Your task to perform on an android device: turn on showing notifications on the lock screen Image 0: 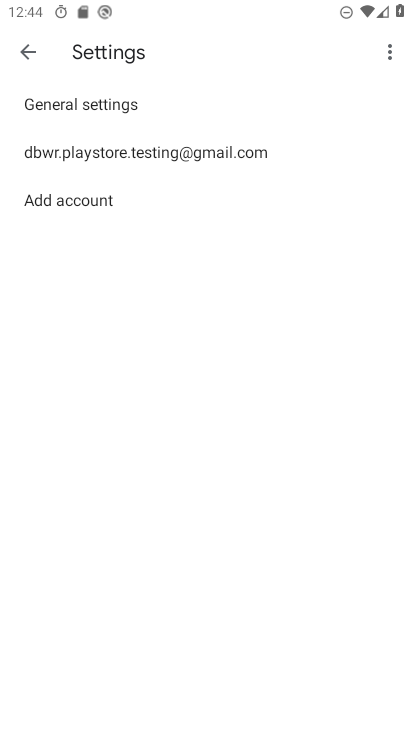
Step 0: press home button
Your task to perform on an android device: turn on showing notifications on the lock screen Image 1: 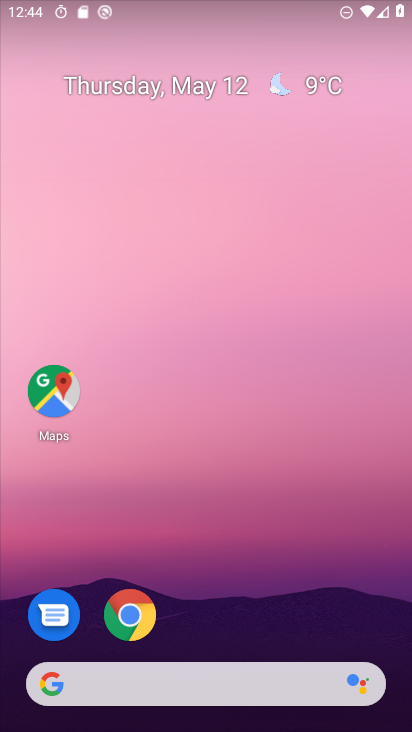
Step 1: drag from (260, 490) to (246, 68)
Your task to perform on an android device: turn on showing notifications on the lock screen Image 2: 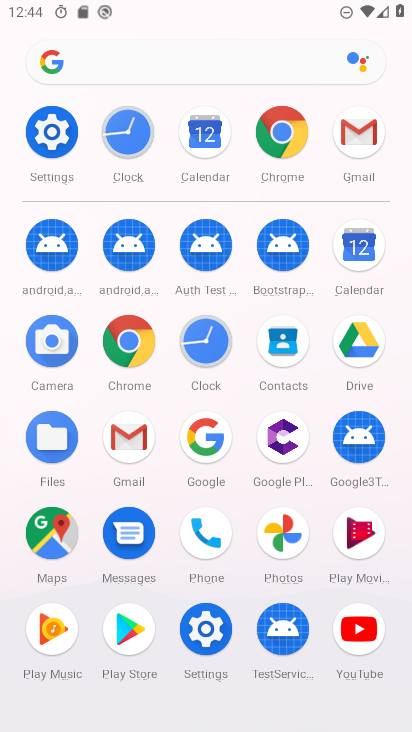
Step 2: click (57, 146)
Your task to perform on an android device: turn on showing notifications on the lock screen Image 3: 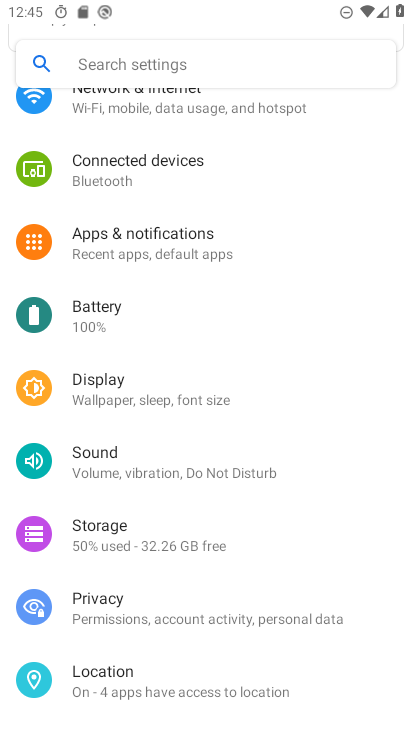
Step 3: drag from (178, 323) to (177, 499)
Your task to perform on an android device: turn on showing notifications on the lock screen Image 4: 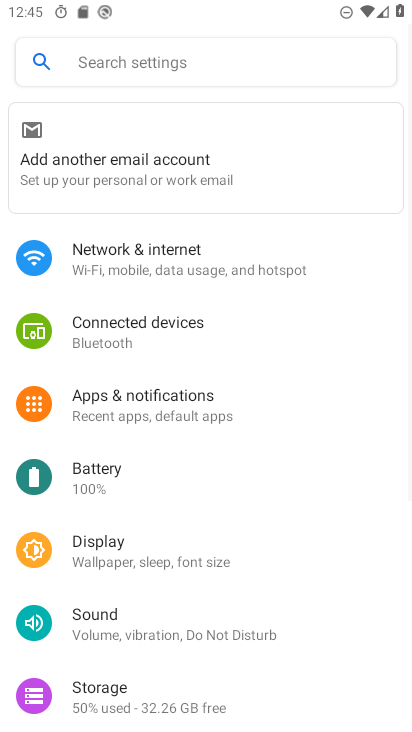
Step 4: click (168, 418)
Your task to perform on an android device: turn on showing notifications on the lock screen Image 5: 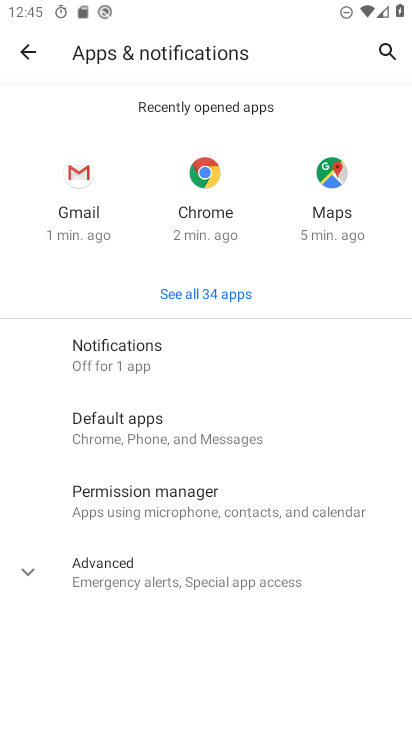
Step 5: click (160, 370)
Your task to perform on an android device: turn on showing notifications on the lock screen Image 6: 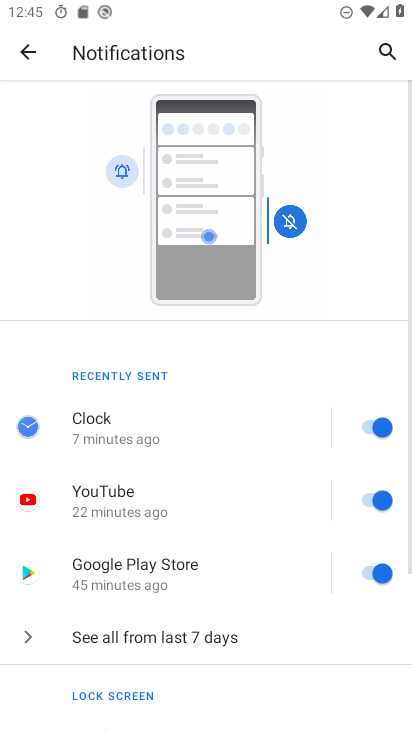
Step 6: drag from (201, 632) to (225, 93)
Your task to perform on an android device: turn on showing notifications on the lock screen Image 7: 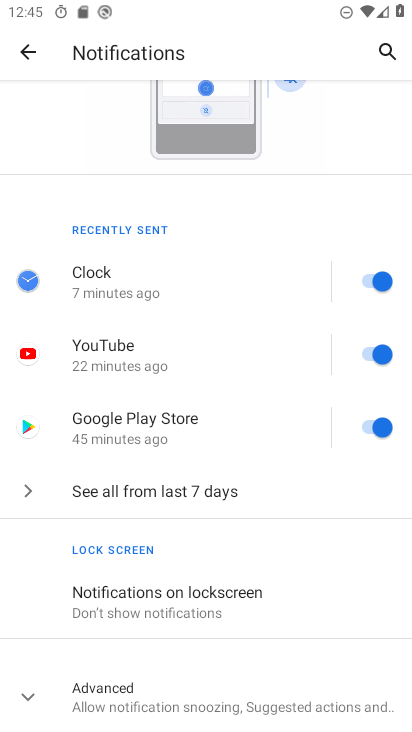
Step 7: click (174, 606)
Your task to perform on an android device: turn on showing notifications on the lock screen Image 8: 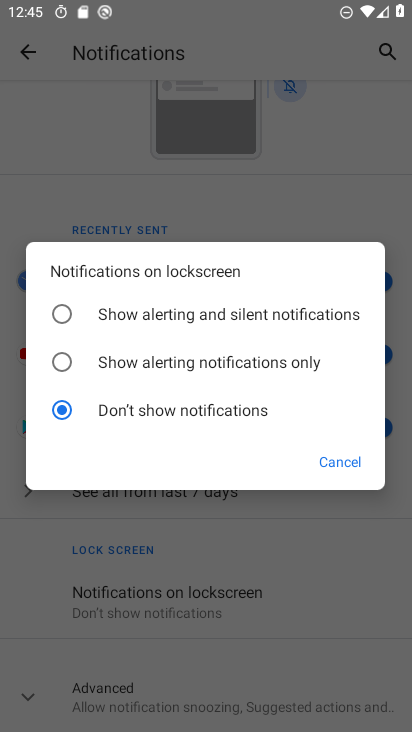
Step 8: click (200, 369)
Your task to perform on an android device: turn on showing notifications on the lock screen Image 9: 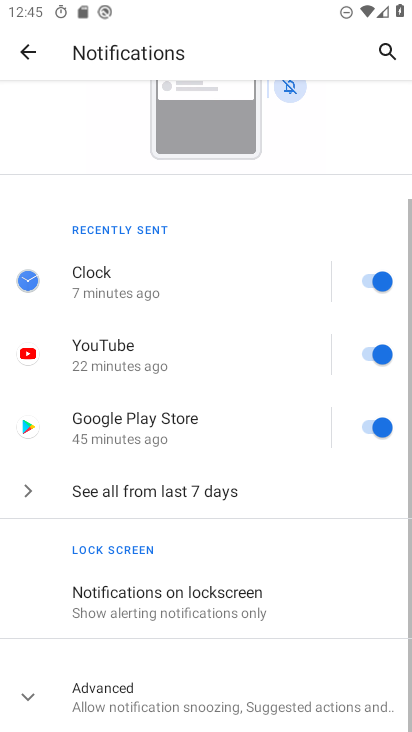
Step 9: task complete